Your task to perform on an android device: allow notifications from all sites in the chrome app Image 0: 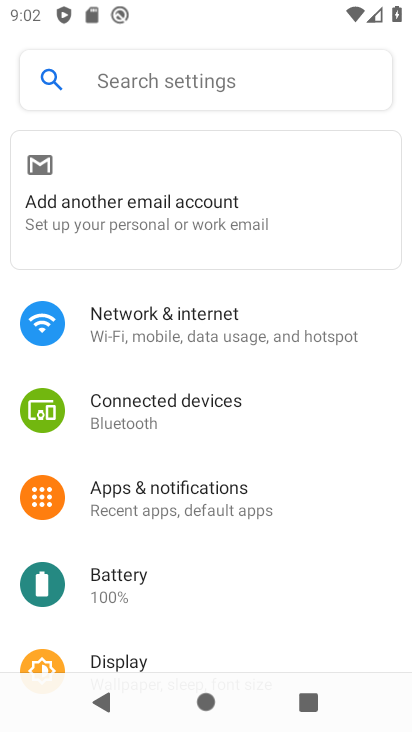
Step 0: press home button
Your task to perform on an android device: allow notifications from all sites in the chrome app Image 1: 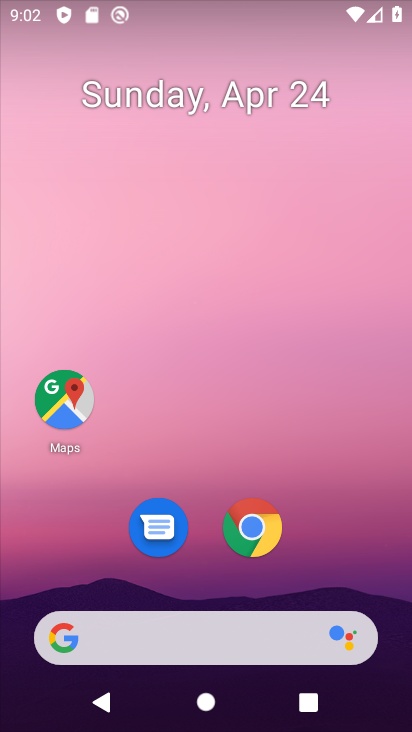
Step 1: drag from (360, 544) to (207, 44)
Your task to perform on an android device: allow notifications from all sites in the chrome app Image 2: 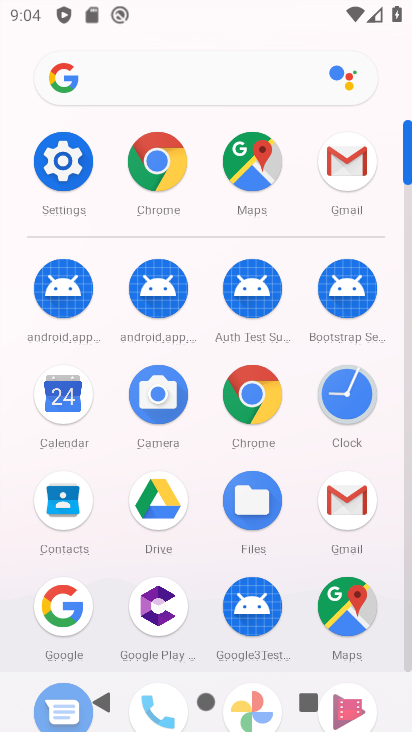
Step 2: click (265, 398)
Your task to perform on an android device: allow notifications from all sites in the chrome app Image 3: 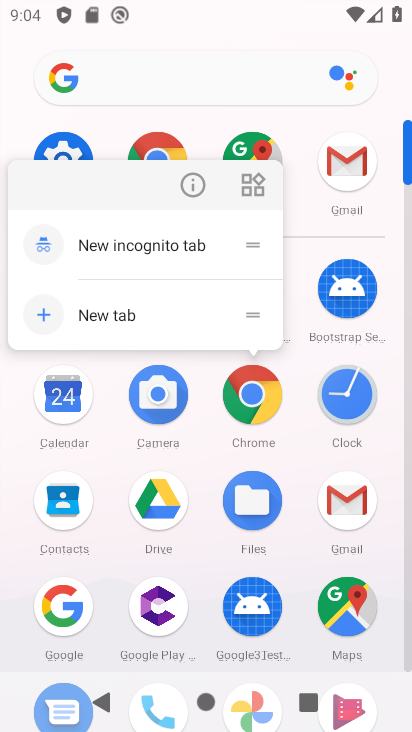
Step 3: click (251, 412)
Your task to perform on an android device: allow notifications from all sites in the chrome app Image 4: 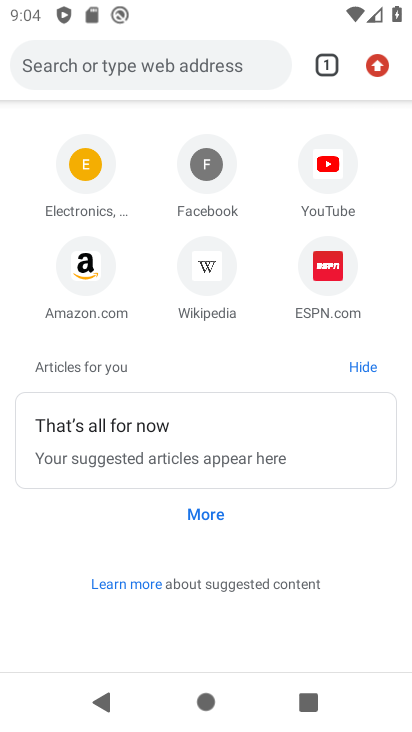
Step 4: click (372, 63)
Your task to perform on an android device: allow notifications from all sites in the chrome app Image 5: 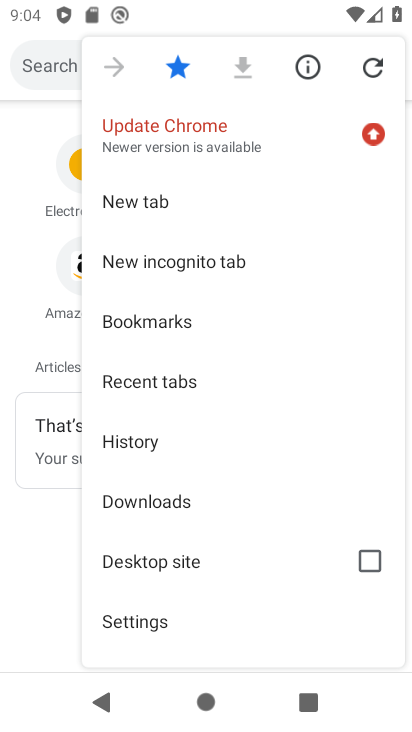
Step 5: click (175, 622)
Your task to perform on an android device: allow notifications from all sites in the chrome app Image 6: 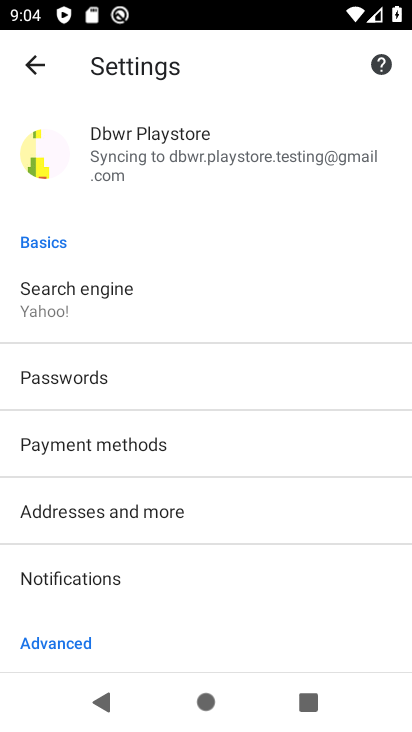
Step 6: drag from (173, 613) to (263, 270)
Your task to perform on an android device: allow notifications from all sites in the chrome app Image 7: 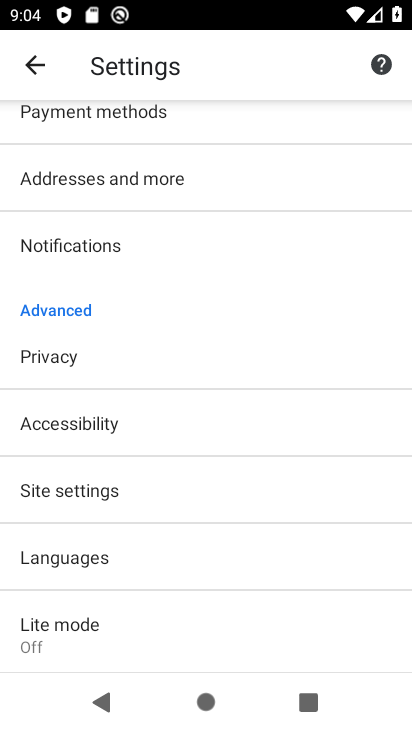
Step 7: click (101, 247)
Your task to perform on an android device: allow notifications from all sites in the chrome app Image 8: 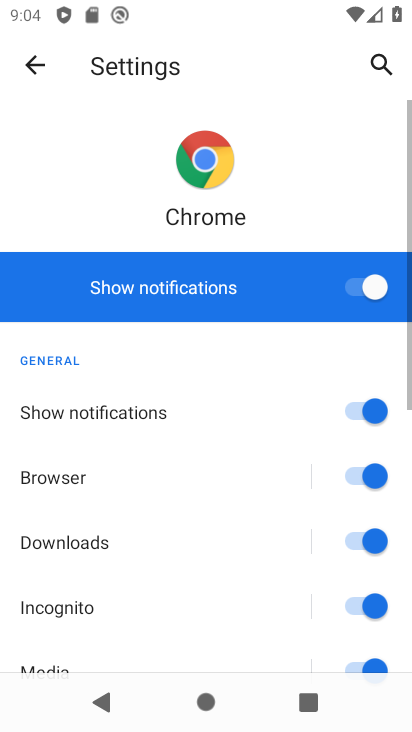
Step 8: task complete